Your task to perform on an android device: Go to ESPN.com Image 0: 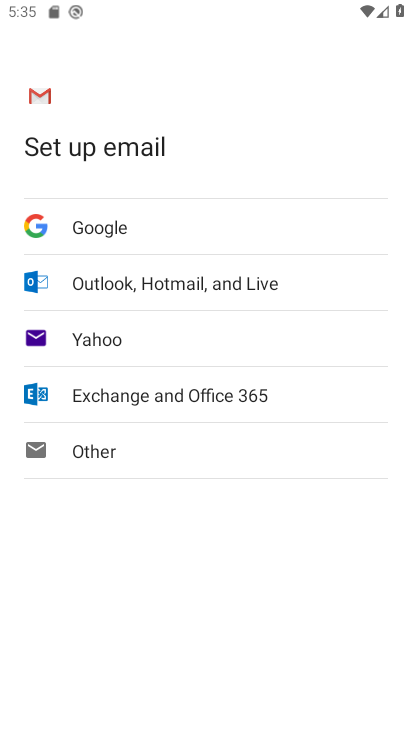
Step 0: press home button
Your task to perform on an android device: Go to ESPN.com Image 1: 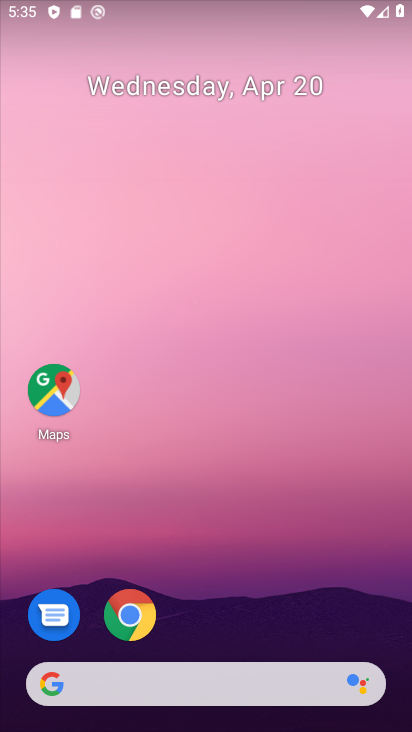
Step 1: click (144, 613)
Your task to perform on an android device: Go to ESPN.com Image 2: 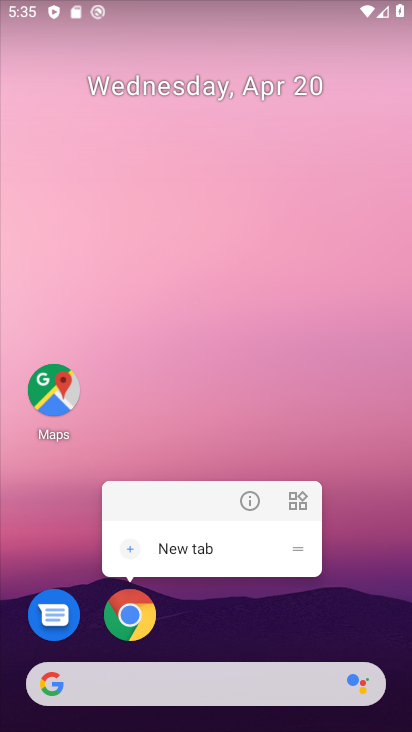
Step 2: click (141, 617)
Your task to perform on an android device: Go to ESPN.com Image 3: 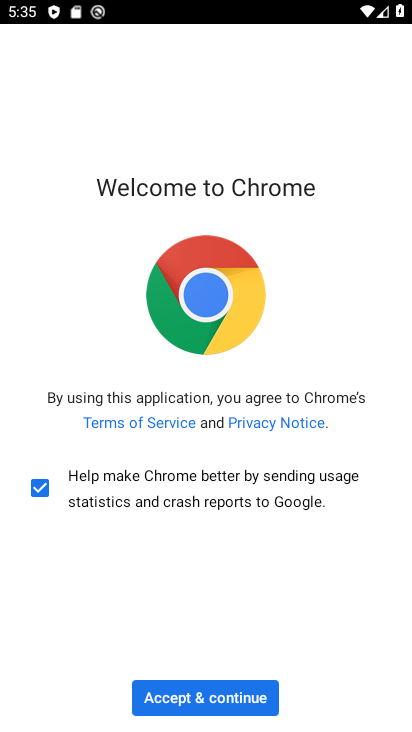
Step 3: click (227, 704)
Your task to perform on an android device: Go to ESPN.com Image 4: 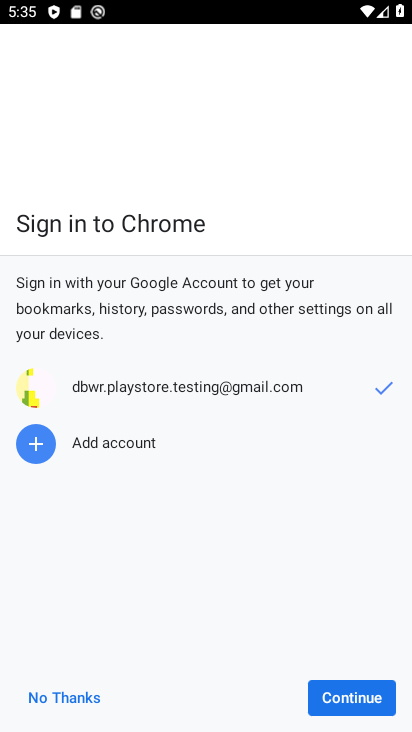
Step 4: click (370, 692)
Your task to perform on an android device: Go to ESPN.com Image 5: 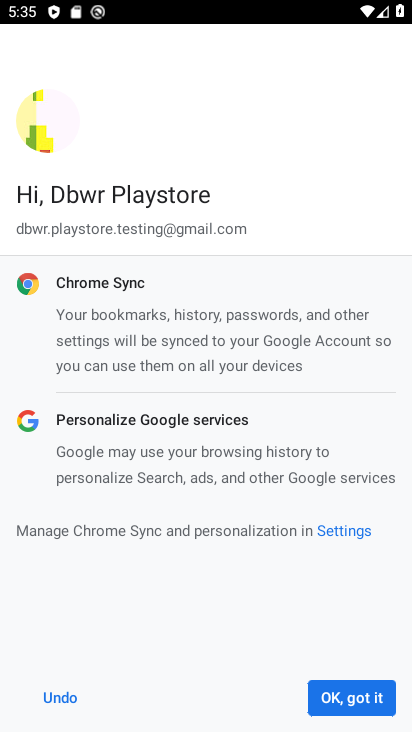
Step 5: click (350, 685)
Your task to perform on an android device: Go to ESPN.com Image 6: 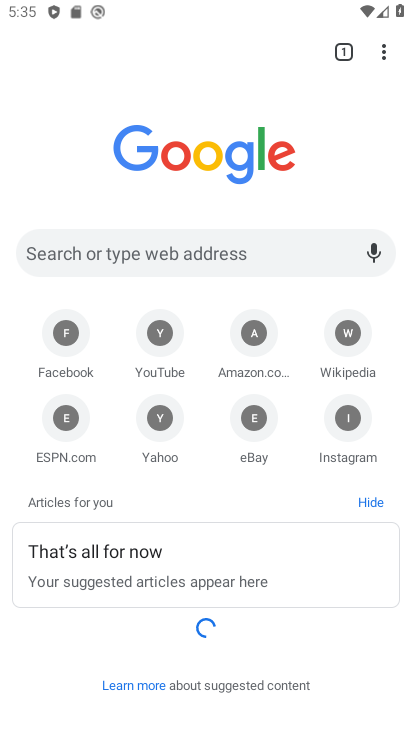
Step 6: click (71, 439)
Your task to perform on an android device: Go to ESPN.com Image 7: 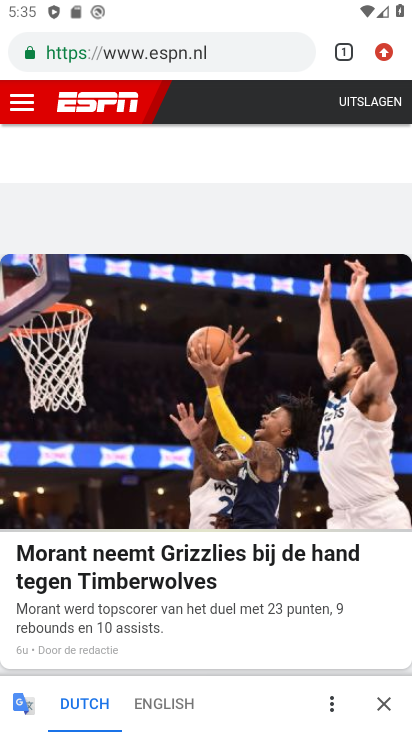
Step 7: task complete